Your task to perform on an android device: turn on showing notifications on the lock screen Image 0: 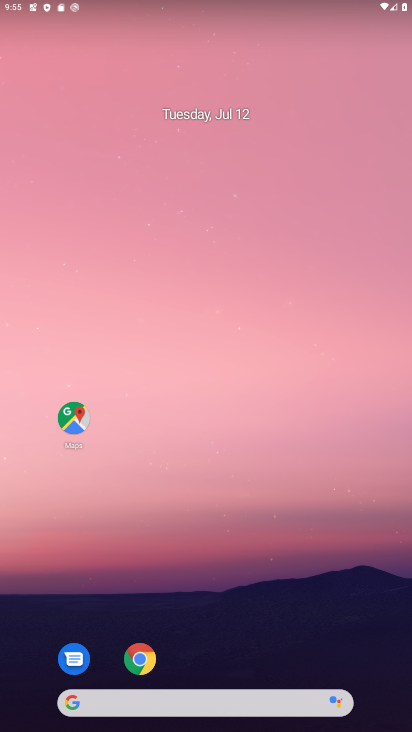
Step 0: drag from (390, 710) to (332, 224)
Your task to perform on an android device: turn on showing notifications on the lock screen Image 1: 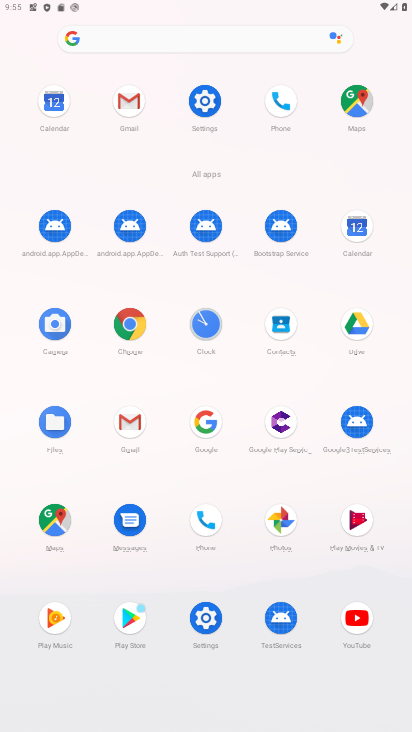
Step 1: click (205, 96)
Your task to perform on an android device: turn on showing notifications on the lock screen Image 2: 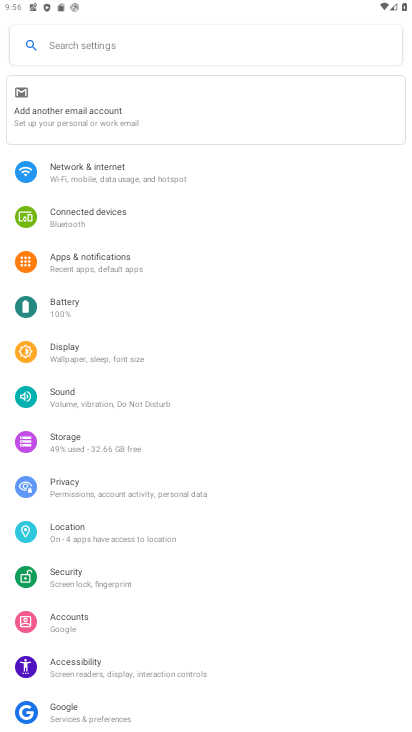
Step 2: click (75, 258)
Your task to perform on an android device: turn on showing notifications on the lock screen Image 3: 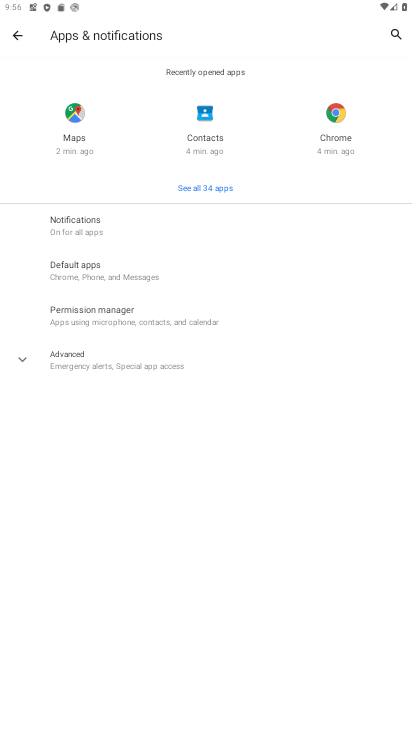
Step 3: click (66, 228)
Your task to perform on an android device: turn on showing notifications on the lock screen Image 4: 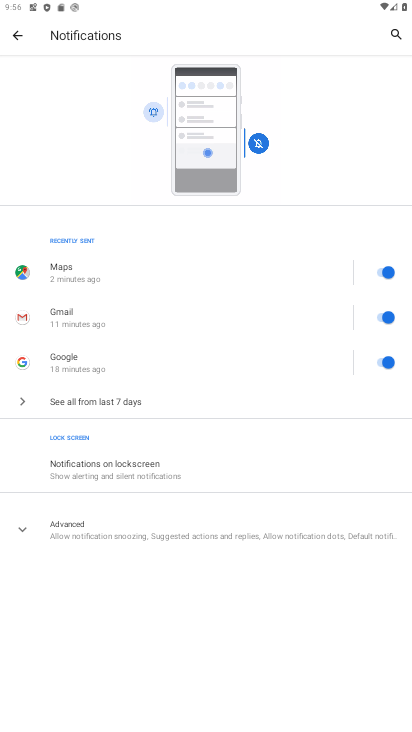
Step 4: click (122, 464)
Your task to perform on an android device: turn on showing notifications on the lock screen Image 5: 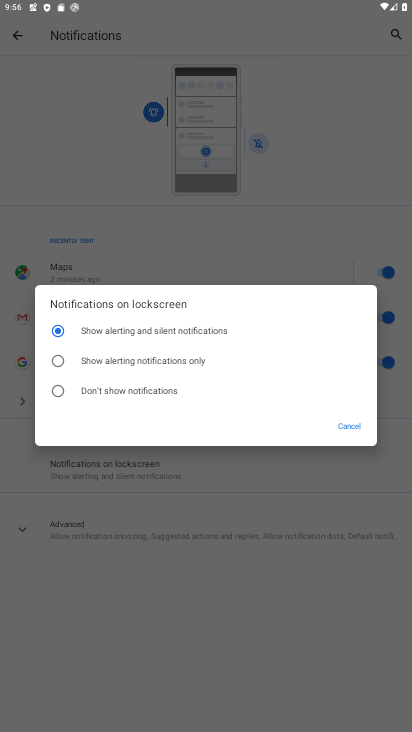
Step 5: task complete